Your task to perform on an android device: Open the web browser Image 0: 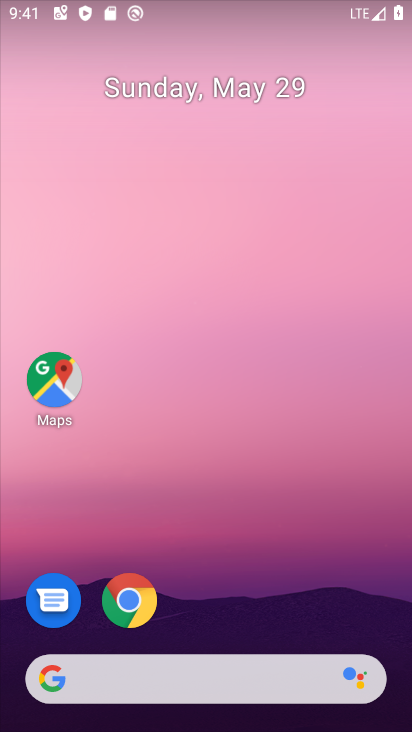
Step 0: click (126, 600)
Your task to perform on an android device: Open the web browser Image 1: 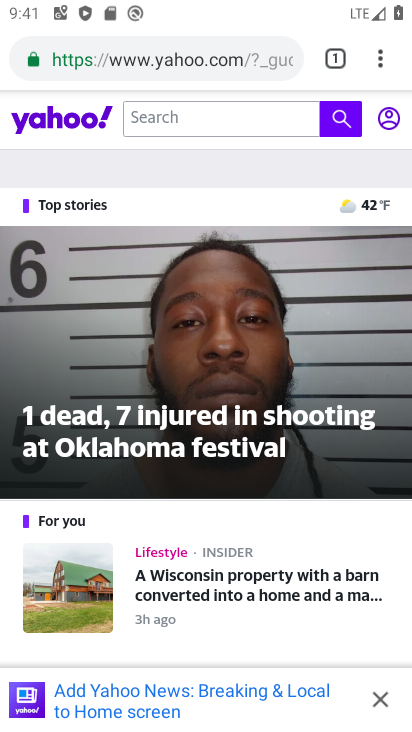
Step 1: click (192, 52)
Your task to perform on an android device: Open the web browser Image 2: 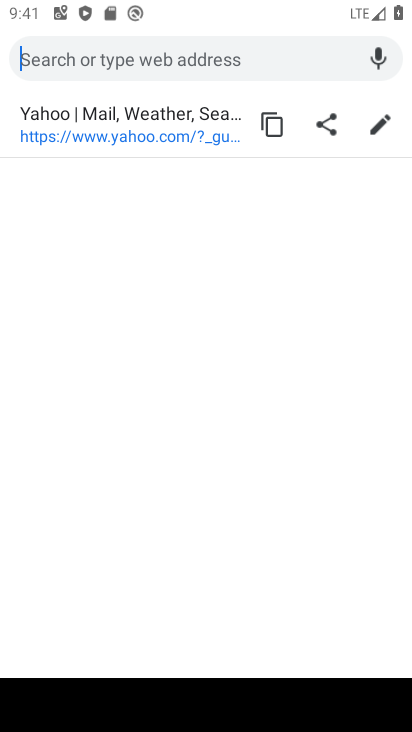
Step 2: type "web browser"
Your task to perform on an android device: Open the web browser Image 3: 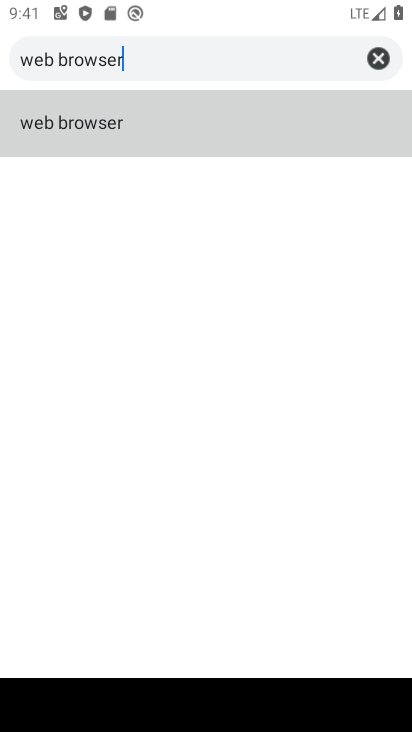
Step 3: click (53, 128)
Your task to perform on an android device: Open the web browser Image 4: 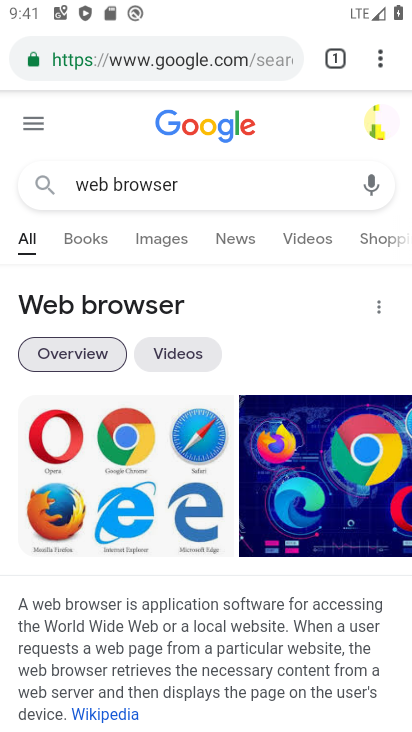
Step 4: task complete